Your task to perform on an android device: Open Google Maps Image 0: 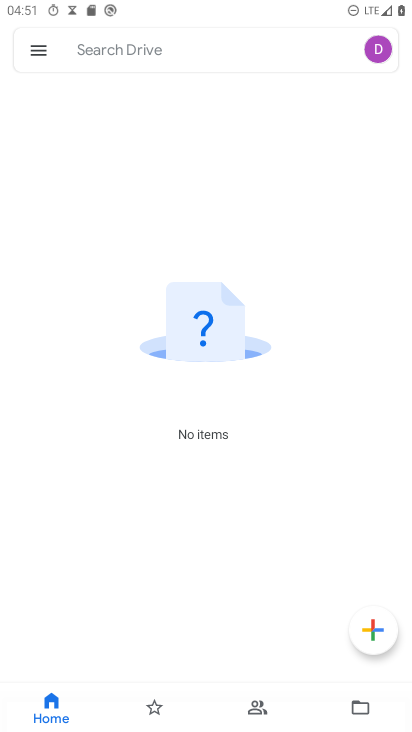
Step 0: press home button
Your task to perform on an android device: Open Google Maps Image 1: 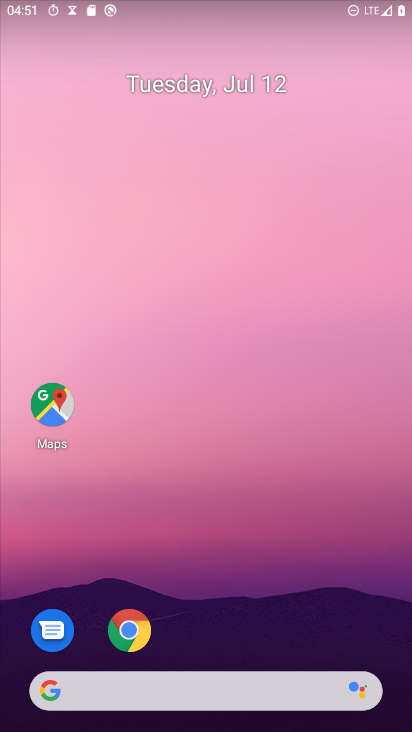
Step 1: drag from (306, 674) to (333, 39)
Your task to perform on an android device: Open Google Maps Image 2: 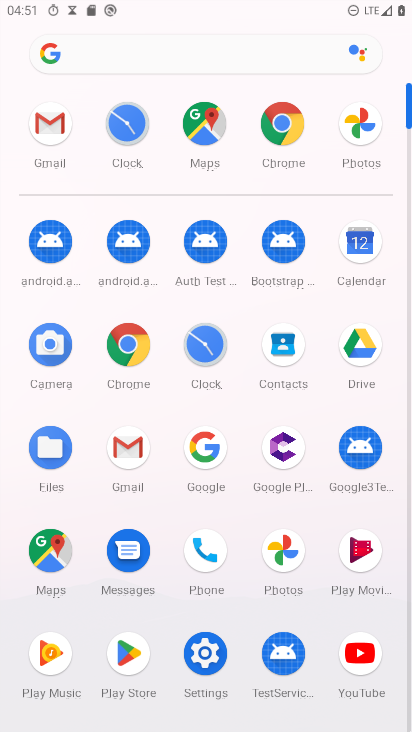
Step 2: click (54, 541)
Your task to perform on an android device: Open Google Maps Image 3: 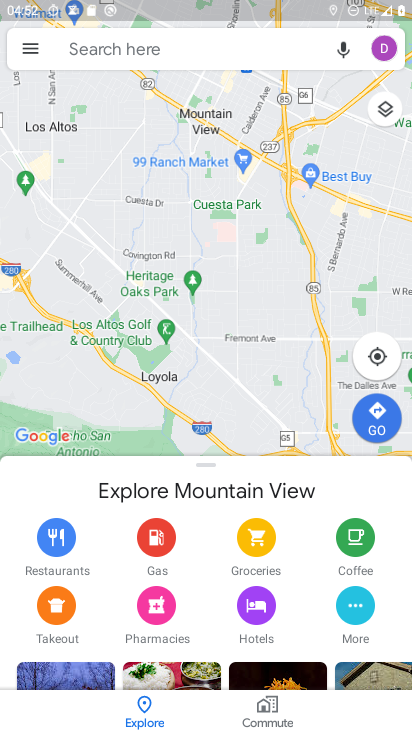
Step 3: task complete